Your task to perform on an android device: toggle pop-ups in chrome Image 0: 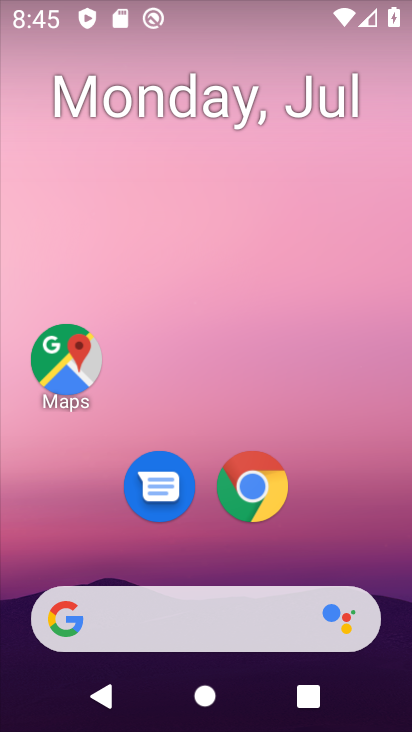
Step 0: click (256, 476)
Your task to perform on an android device: toggle pop-ups in chrome Image 1: 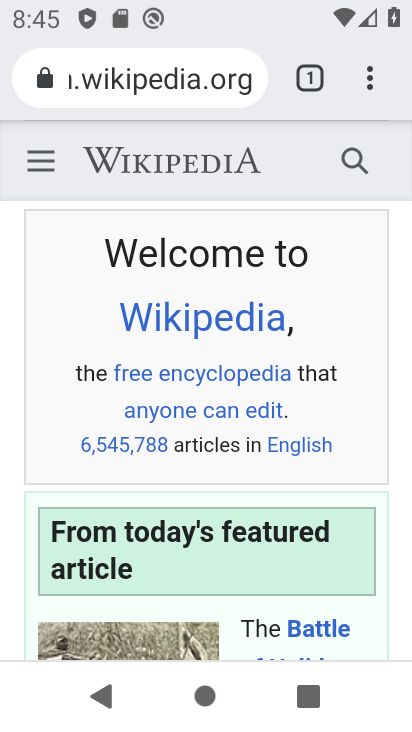
Step 1: drag from (365, 83) to (111, 554)
Your task to perform on an android device: toggle pop-ups in chrome Image 2: 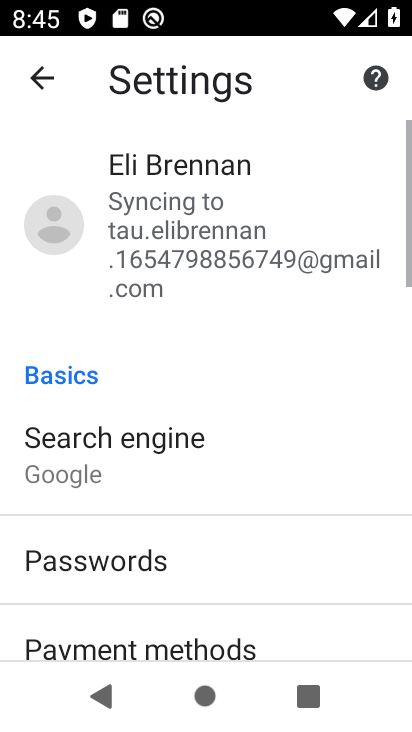
Step 2: drag from (133, 616) to (301, 85)
Your task to perform on an android device: toggle pop-ups in chrome Image 3: 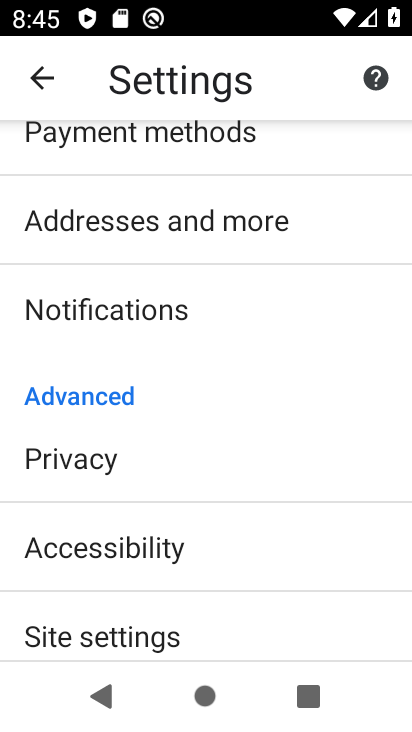
Step 3: click (121, 625)
Your task to perform on an android device: toggle pop-ups in chrome Image 4: 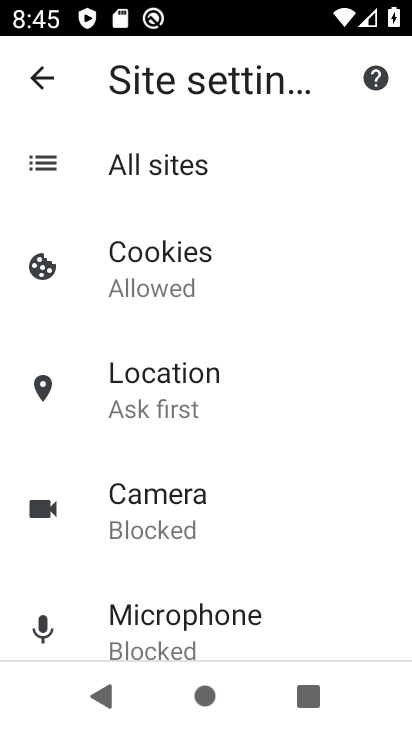
Step 4: drag from (200, 606) to (306, 96)
Your task to perform on an android device: toggle pop-ups in chrome Image 5: 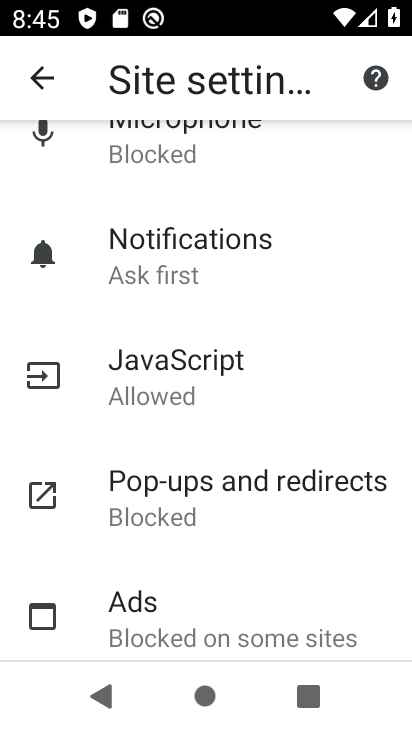
Step 5: click (185, 494)
Your task to perform on an android device: toggle pop-ups in chrome Image 6: 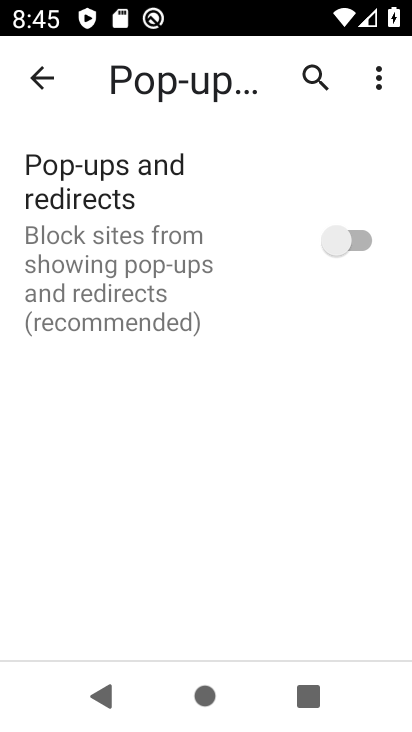
Step 6: click (328, 239)
Your task to perform on an android device: toggle pop-ups in chrome Image 7: 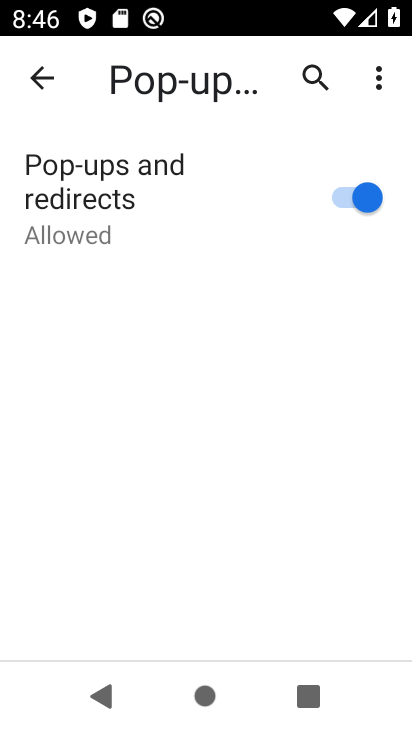
Step 7: task complete